Your task to perform on an android device: turn off translation in the chrome app Image 0: 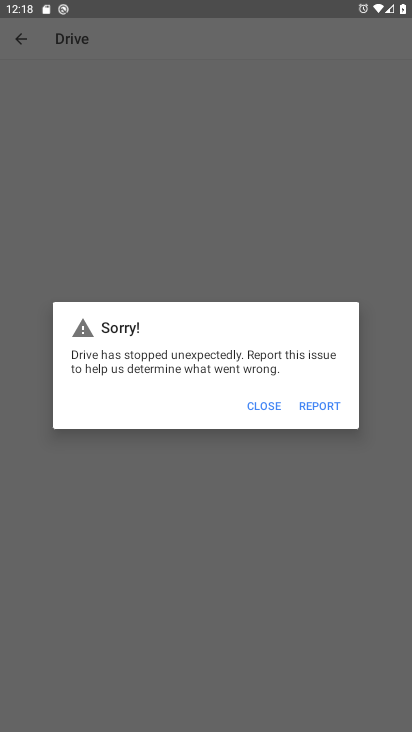
Step 0: press home button
Your task to perform on an android device: turn off translation in the chrome app Image 1: 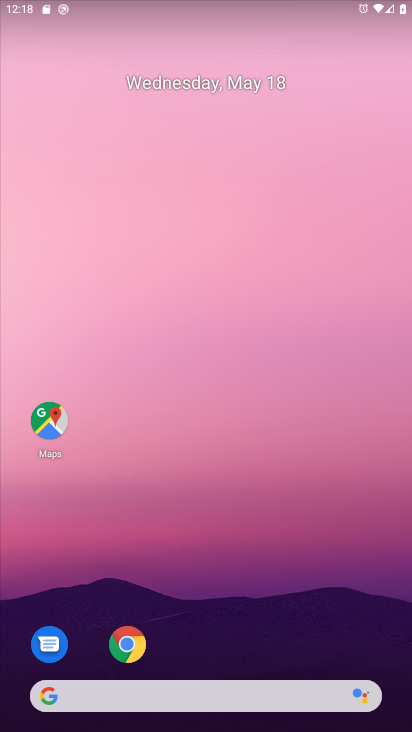
Step 1: click (120, 642)
Your task to perform on an android device: turn off translation in the chrome app Image 2: 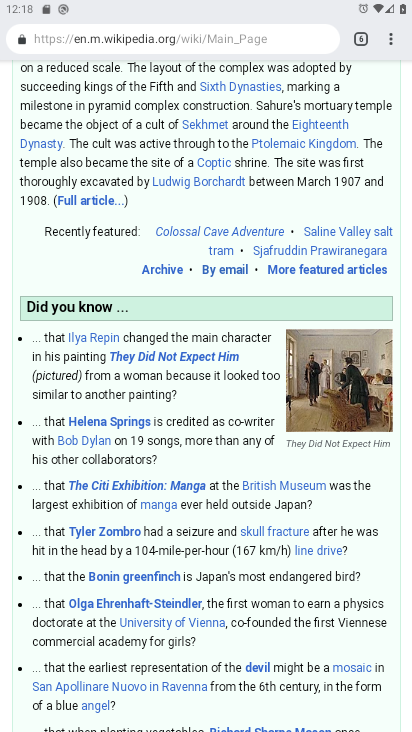
Step 2: click (390, 39)
Your task to perform on an android device: turn off translation in the chrome app Image 3: 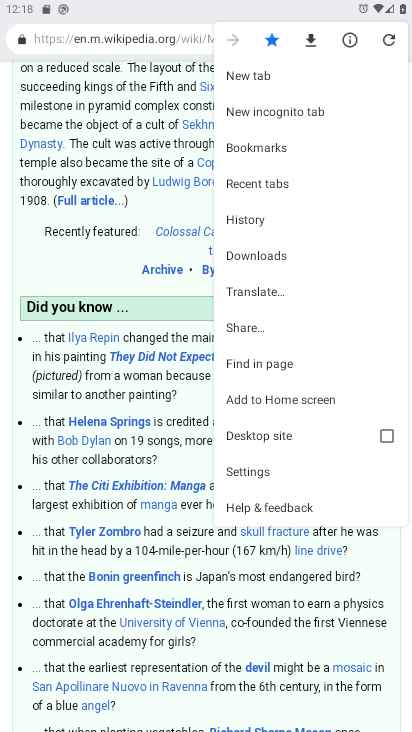
Step 3: click (280, 467)
Your task to perform on an android device: turn off translation in the chrome app Image 4: 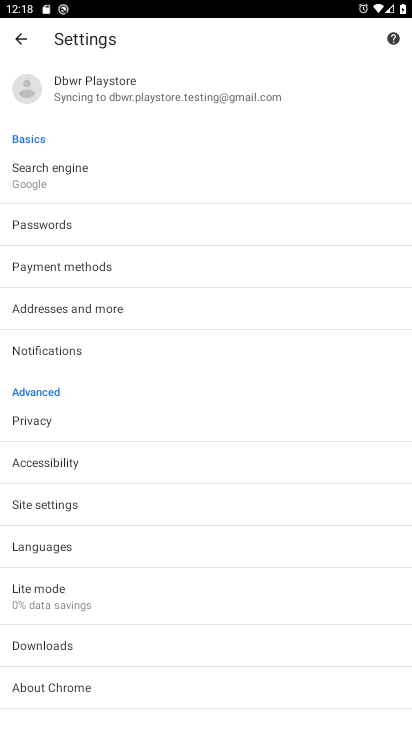
Step 4: click (75, 549)
Your task to perform on an android device: turn off translation in the chrome app Image 5: 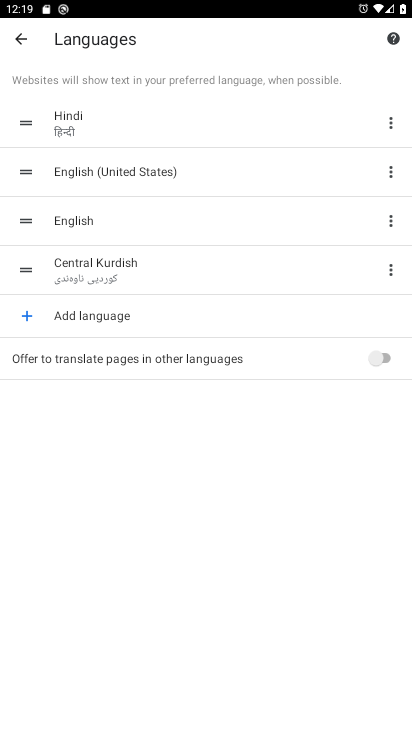
Step 5: task complete